Your task to perform on an android device: turn on wifi Image 0: 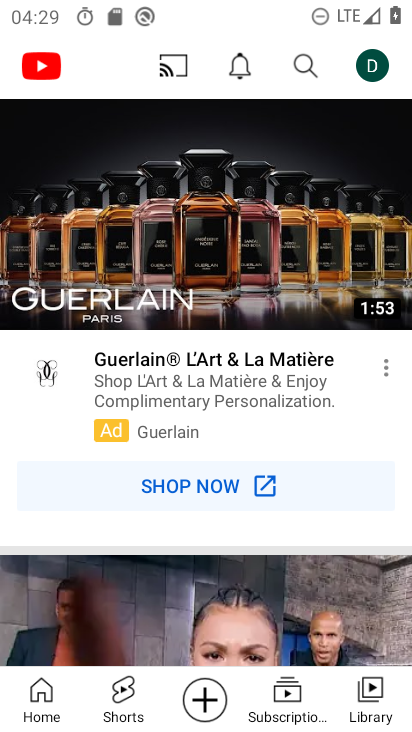
Step 0: press home button
Your task to perform on an android device: turn on wifi Image 1: 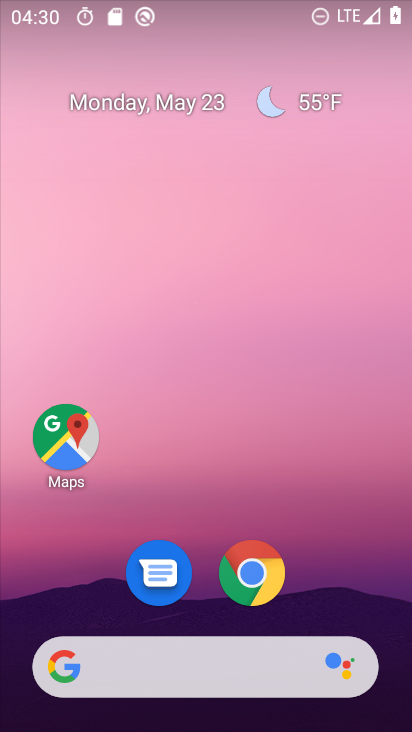
Step 1: drag from (352, 570) to (322, 64)
Your task to perform on an android device: turn on wifi Image 2: 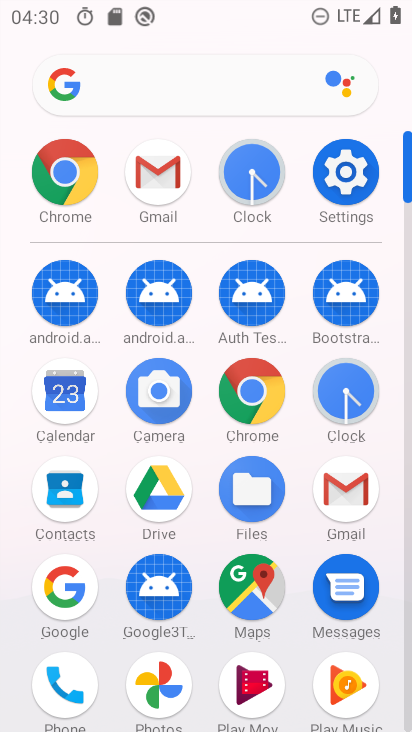
Step 2: click (337, 168)
Your task to perform on an android device: turn on wifi Image 3: 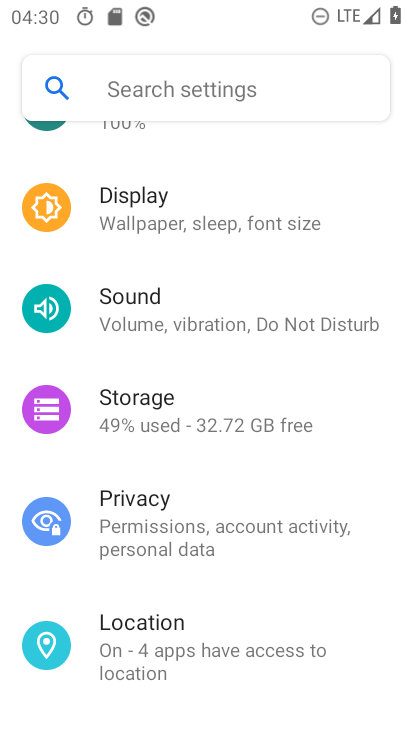
Step 3: drag from (214, 215) to (196, 583)
Your task to perform on an android device: turn on wifi Image 4: 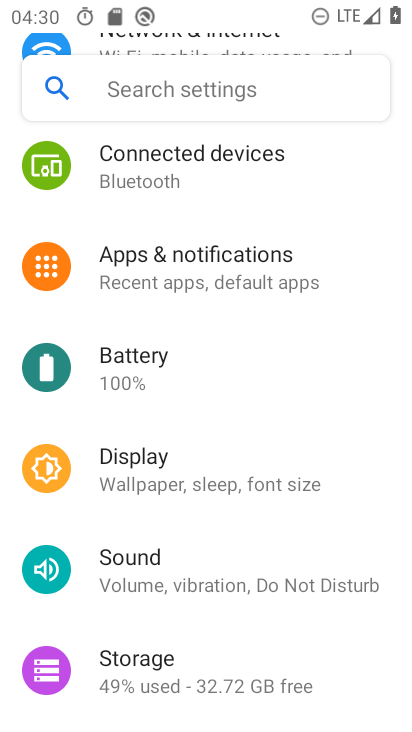
Step 4: drag from (260, 229) to (250, 573)
Your task to perform on an android device: turn on wifi Image 5: 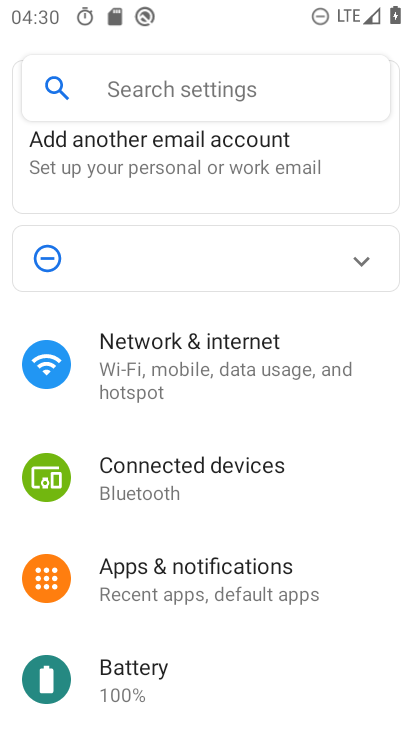
Step 5: click (227, 356)
Your task to perform on an android device: turn on wifi Image 6: 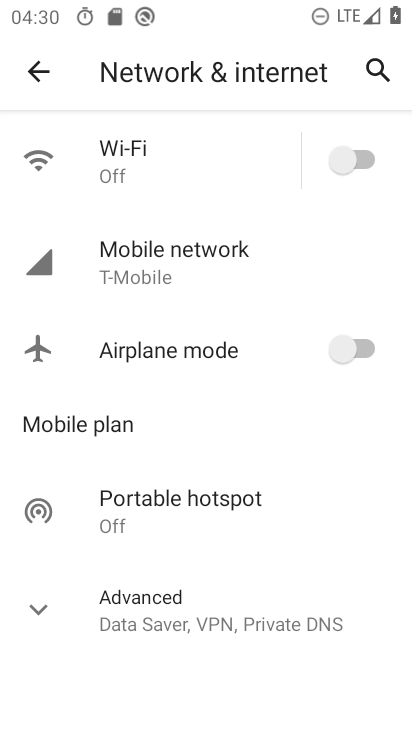
Step 6: click (150, 164)
Your task to perform on an android device: turn on wifi Image 7: 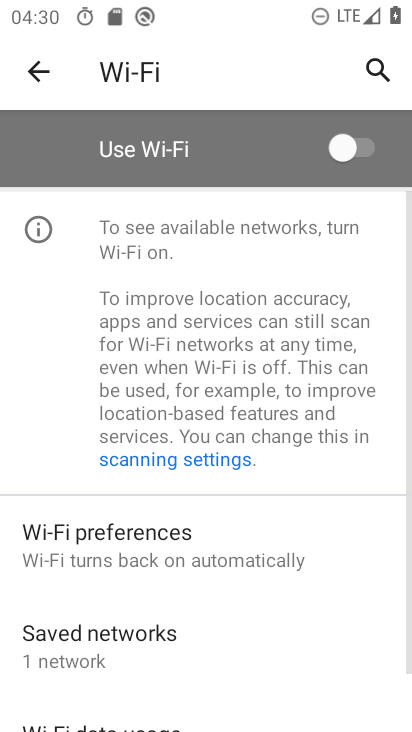
Step 7: click (362, 149)
Your task to perform on an android device: turn on wifi Image 8: 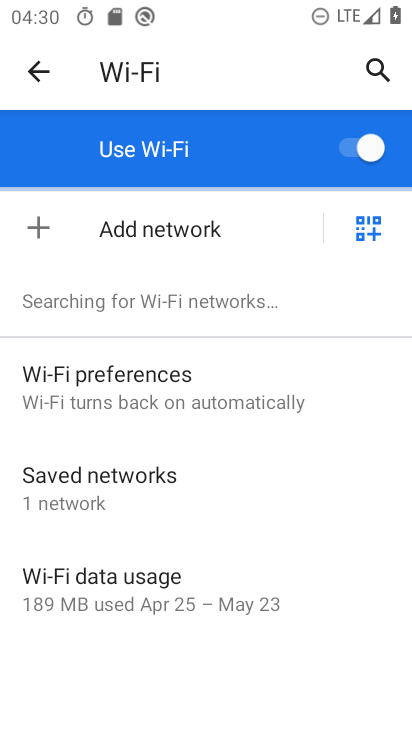
Step 8: task complete